Your task to perform on an android device: turn notification dots on Image 0: 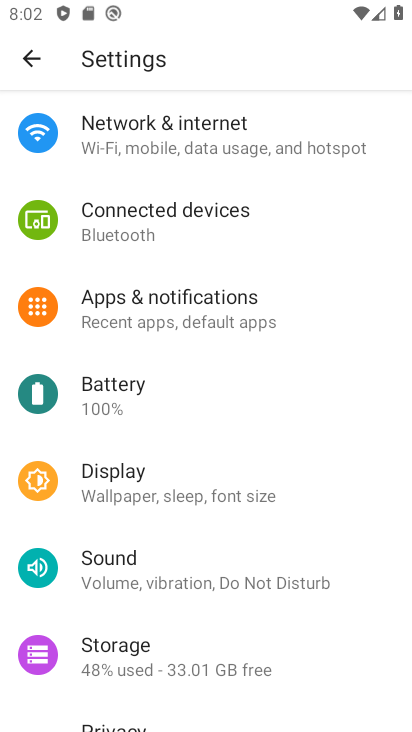
Step 0: click (175, 305)
Your task to perform on an android device: turn notification dots on Image 1: 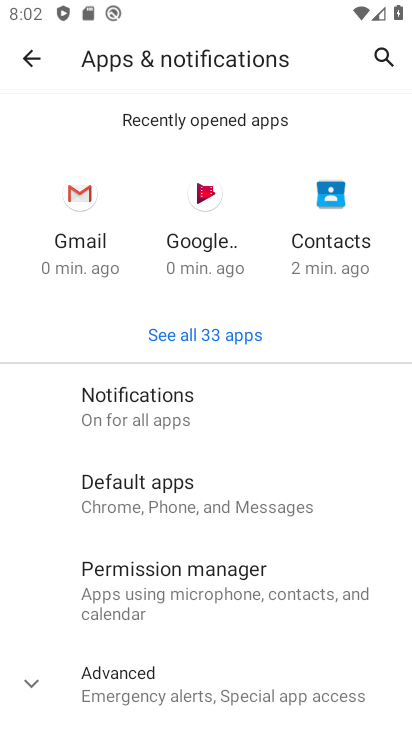
Step 1: click (138, 401)
Your task to perform on an android device: turn notification dots on Image 2: 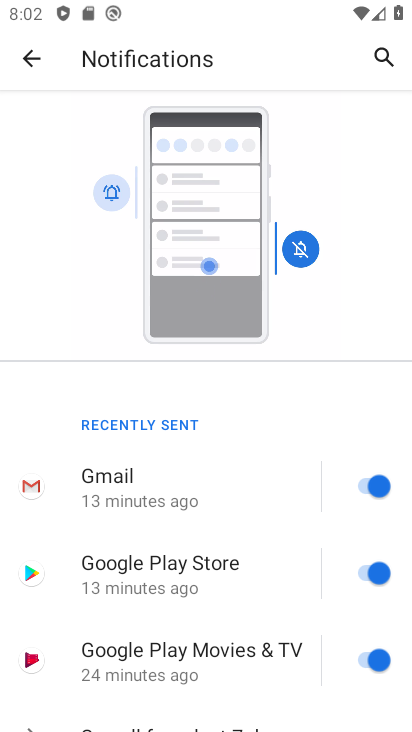
Step 2: drag from (197, 675) to (199, 340)
Your task to perform on an android device: turn notification dots on Image 3: 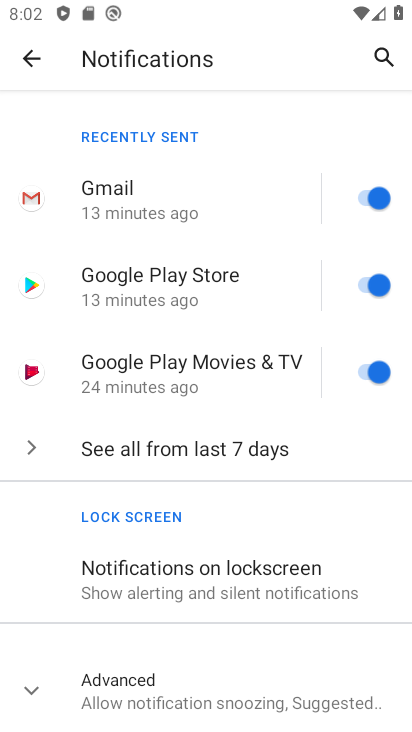
Step 3: drag from (199, 668) to (209, 335)
Your task to perform on an android device: turn notification dots on Image 4: 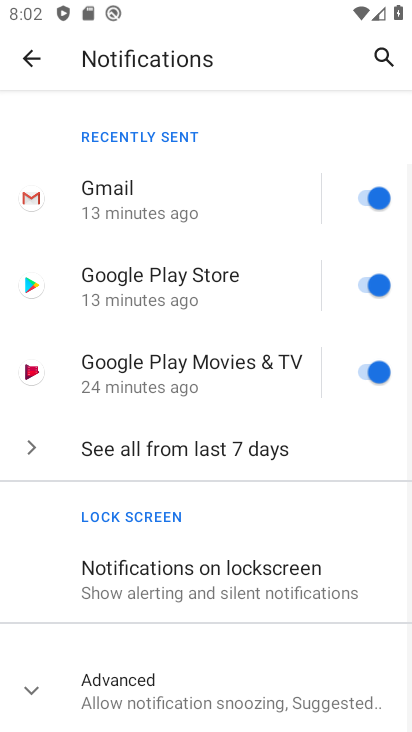
Step 4: click (106, 680)
Your task to perform on an android device: turn notification dots on Image 5: 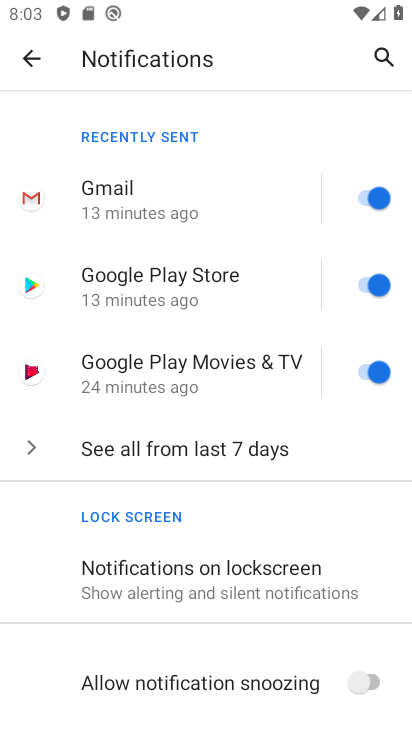
Step 5: task complete